Your task to perform on an android device: Open privacy settings Image 0: 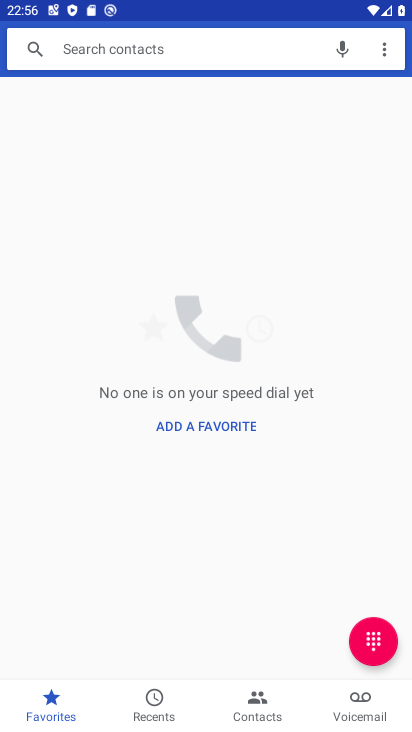
Step 0: press home button
Your task to perform on an android device: Open privacy settings Image 1: 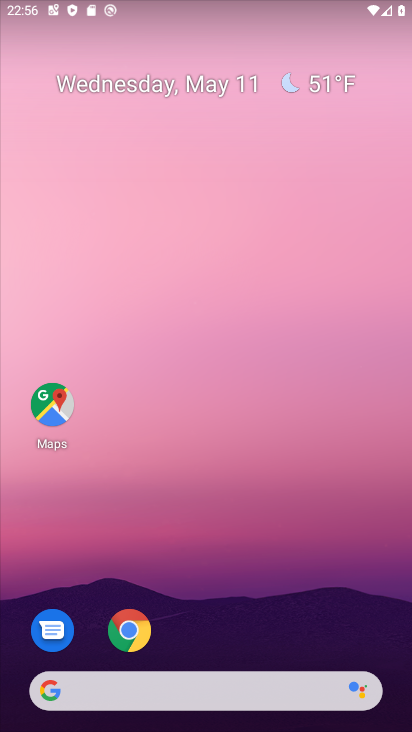
Step 1: drag from (221, 727) to (244, 166)
Your task to perform on an android device: Open privacy settings Image 2: 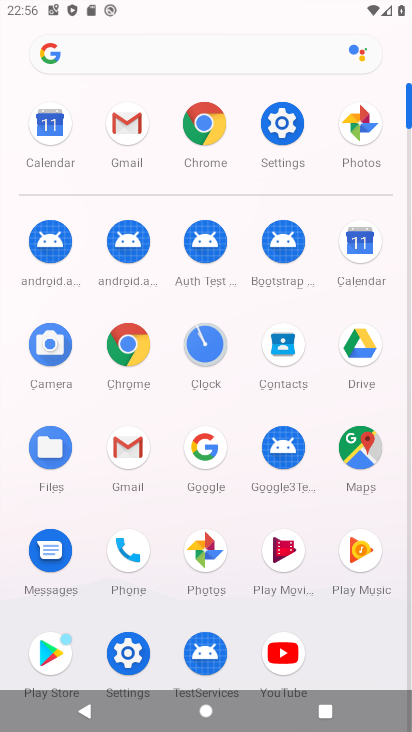
Step 2: click (280, 127)
Your task to perform on an android device: Open privacy settings Image 3: 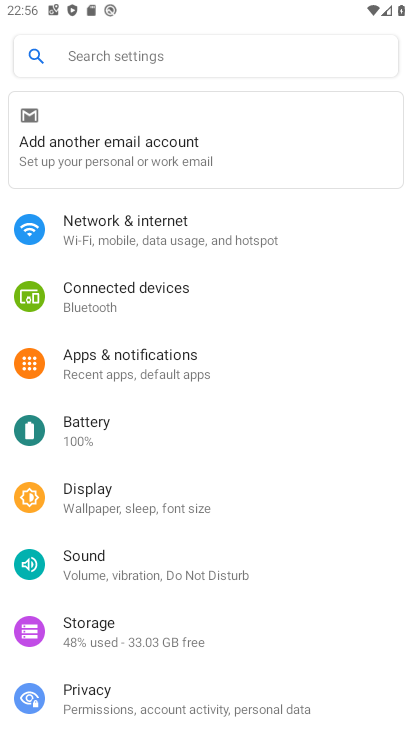
Step 3: click (94, 689)
Your task to perform on an android device: Open privacy settings Image 4: 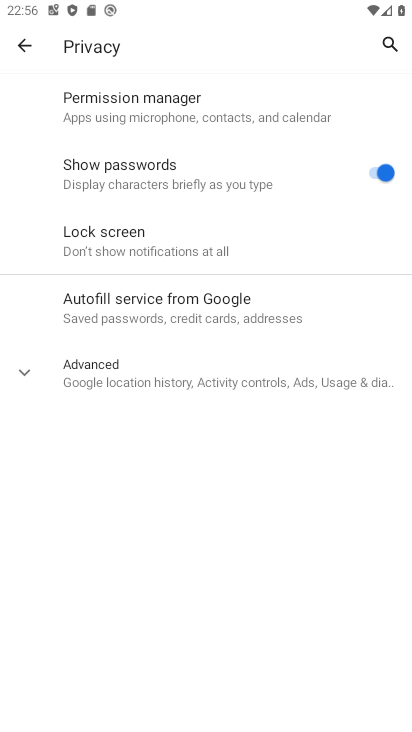
Step 4: task complete